Your task to perform on an android device: turn on improve location accuracy Image 0: 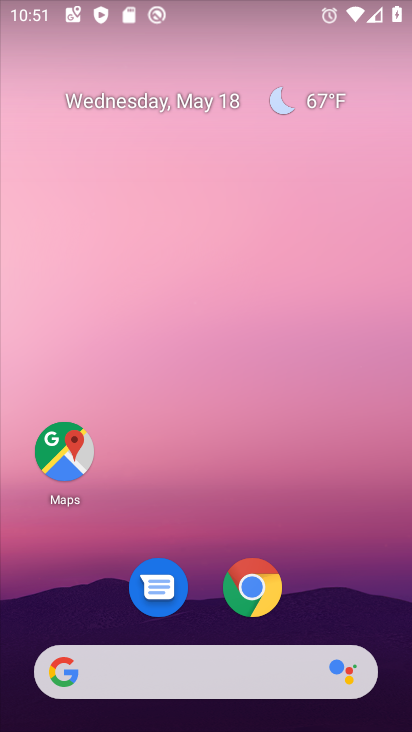
Step 0: drag from (323, 471) to (355, 35)
Your task to perform on an android device: turn on improve location accuracy Image 1: 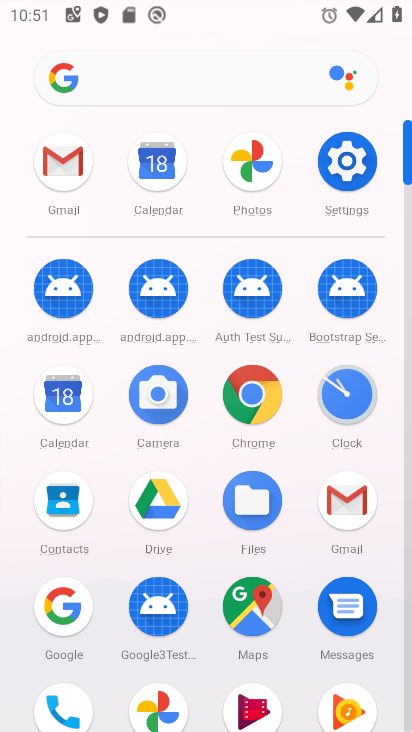
Step 1: click (342, 163)
Your task to perform on an android device: turn on improve location accuracy Image 2: 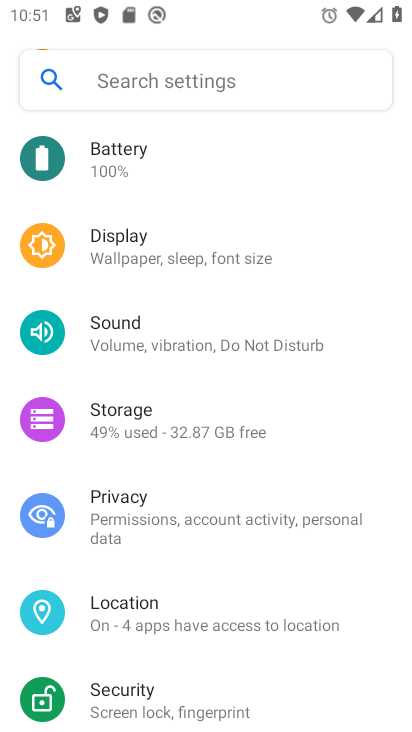
Step 2: drag from (228, 522) to (242, 385)
Your task to perform on an android device: turn on improve location accuracy Image 3: 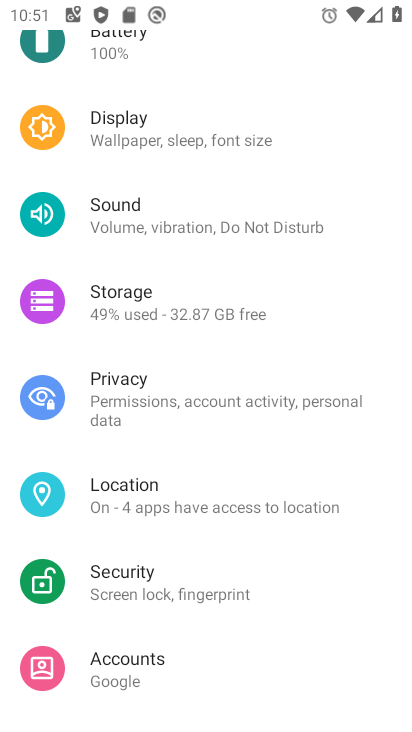
Step 3: click (180, 494)
Your task to perform on an android device: turn on improve location accuracy Image 4: 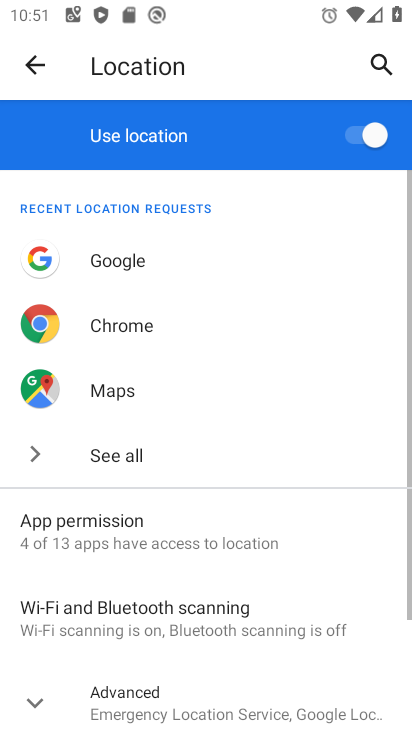
Step 4: drag from (245, 636) to (211, 310)
Your task to perform on an android device: turn on improve location accuracy Image 5: 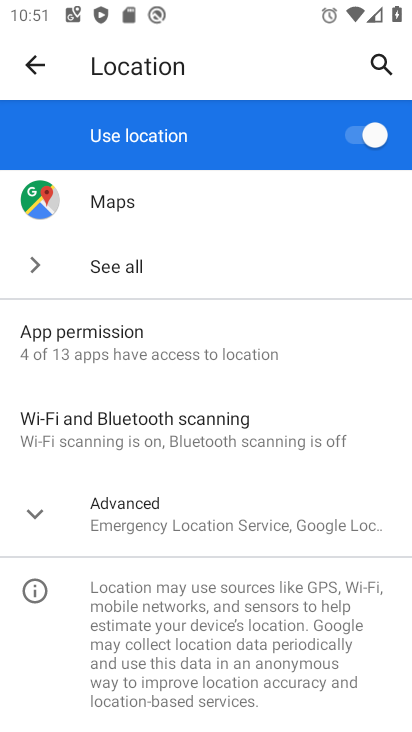
Step 5: click (234, 495)
Your task to perform on an android device: turn on improve location accuracy Image 6: 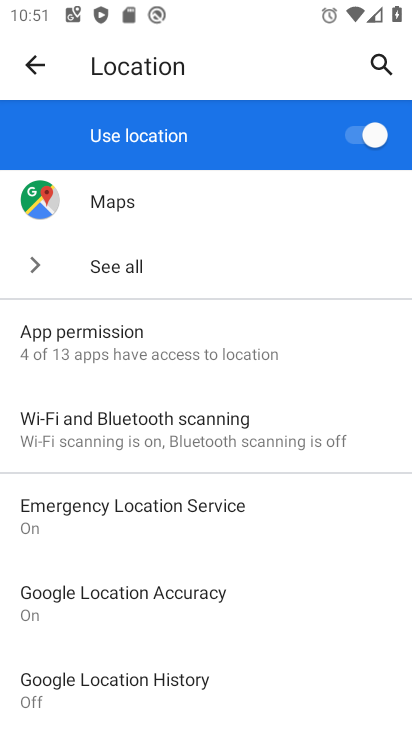
Step 6: task complete